Your task to perform on an android device: add a label to a message in the gmail app Image 0: 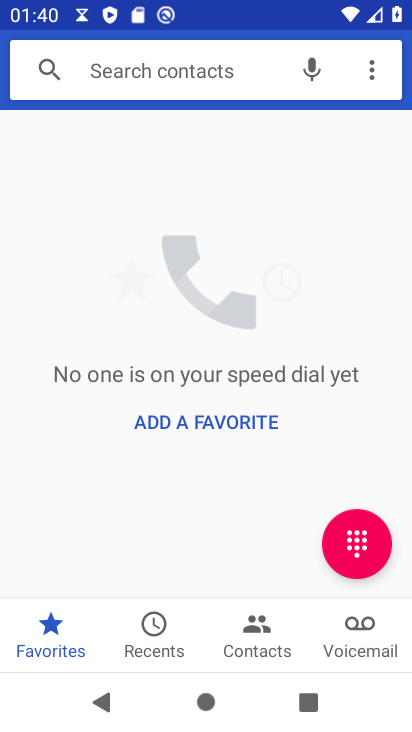
Step 0: press home button
Your task to perform on an android device: add a label to a message in the gmail app Image 1: 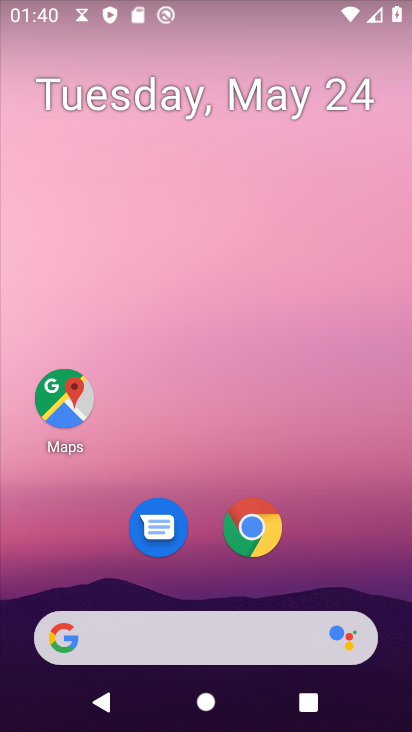
Step 1: drag from (156, 645) to (281, 221)
Your task to perform on an android device: add a label to a message in the gmail app Image 2: 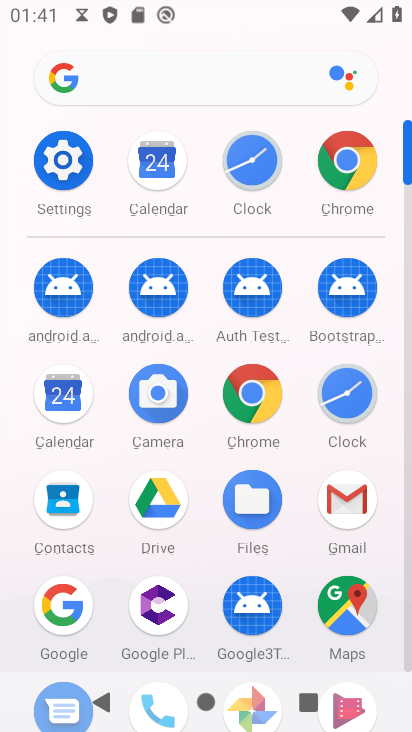
Step 2: click (353, 486)
Your task to perform on an android device: add a label to a message in the gmail app Image 3: 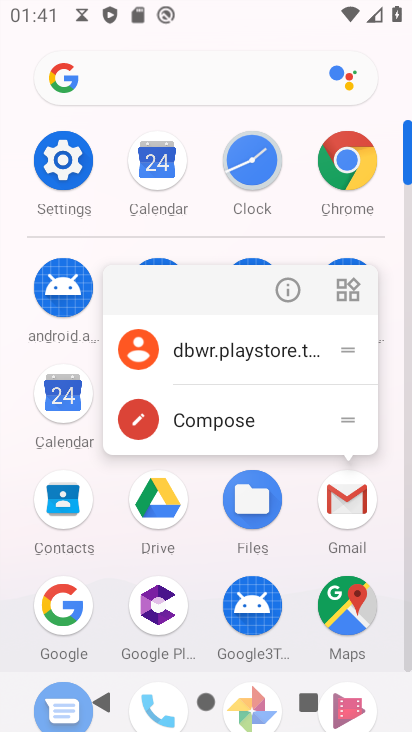
Step 3: click (344, 500)
Your task to perform on an android device: add a label to a message in the gmail app Image 4: 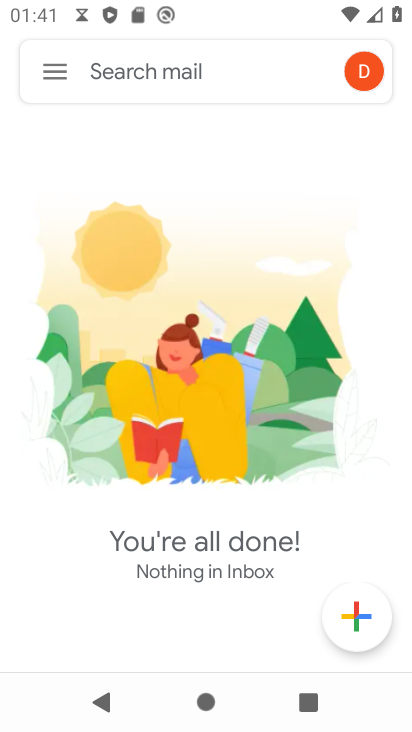
Step 4: task complete